Your task to perform on an android device: change the clock display to analog Image 0: 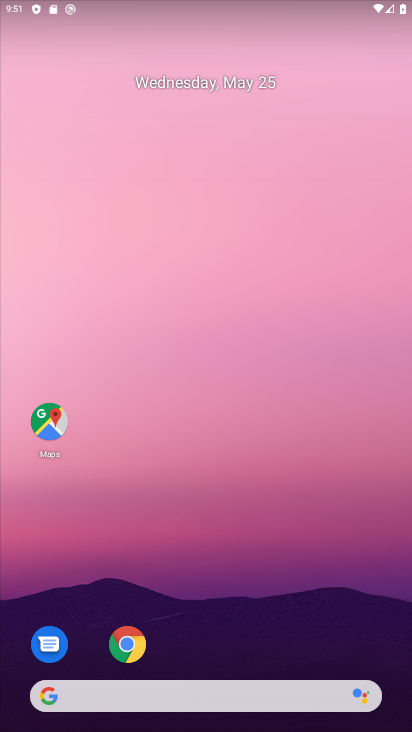
Step 0: drag from (269, 624) to (289, 58)
Your task to perform on an android device: change the clock display to analog Image 1: 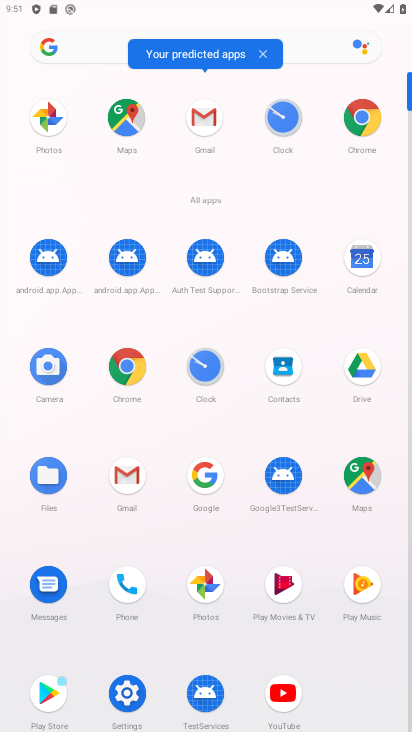
Step 1: click (197, 374)
Your task to perform on an android device: change the clock display to analog Image 2: 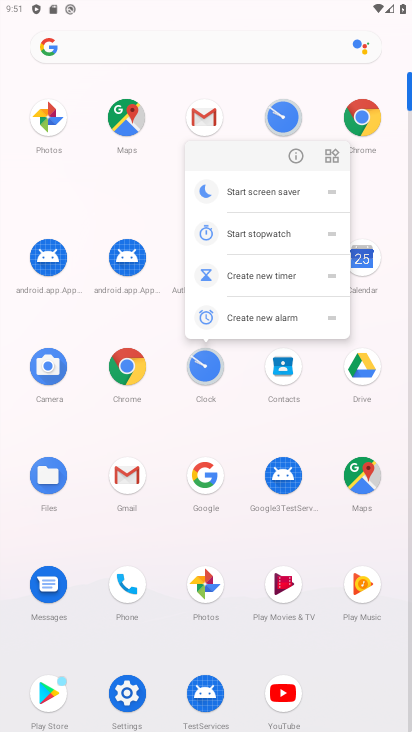
Step 2: click (197, 374)
Your task to perform on an android device: change the clock display to analog Image 3: 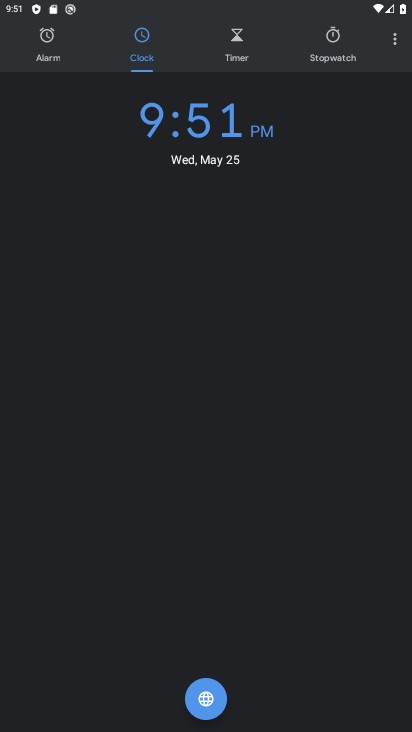
Step 3: click (388, 39)
Your task to perform on an android device: change the clock display to analog Image 4: 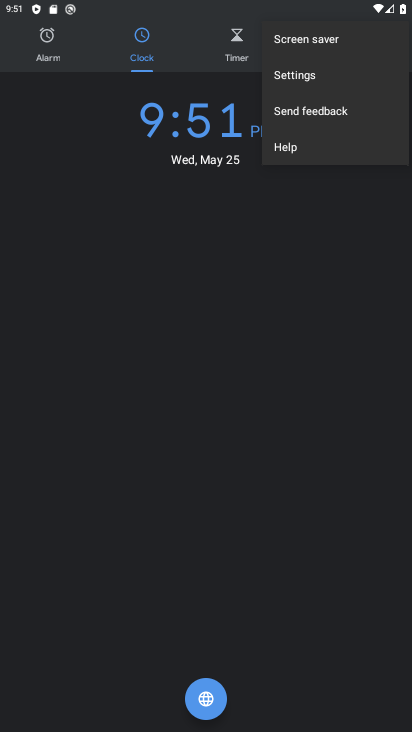
Step 4: click (337, 77)
Your task to perform on an android device: change the clock display to analog Image 5: 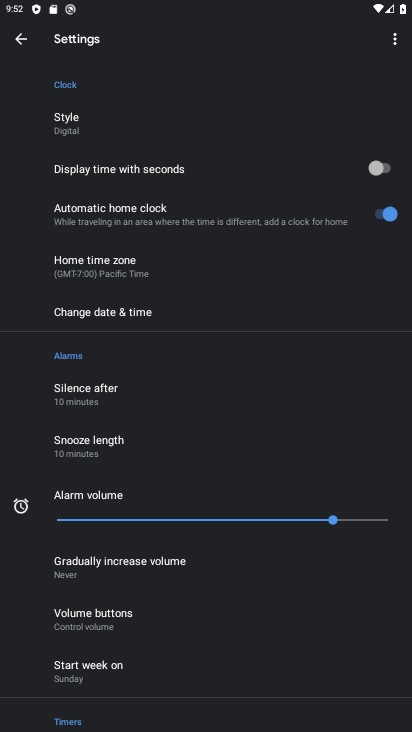
Step 5: click (91, 118)
Your task to perform on an android device: change the clock display to analog Image 6: 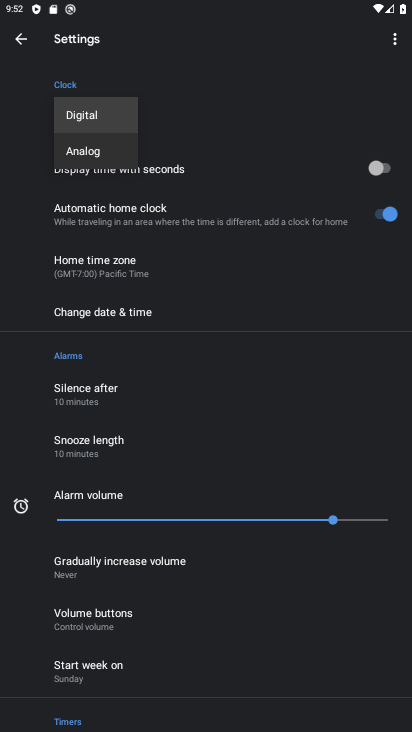
Step 6: click (100, 153)
Your task to perform on an android device: change the clock display to analog Image 7: 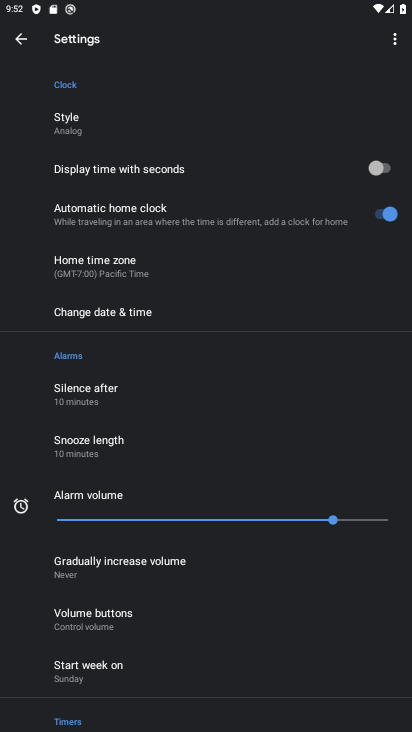
Step 7: task complete